Your task to perform on an android device: turn on javascript in the chrome app Image 0: 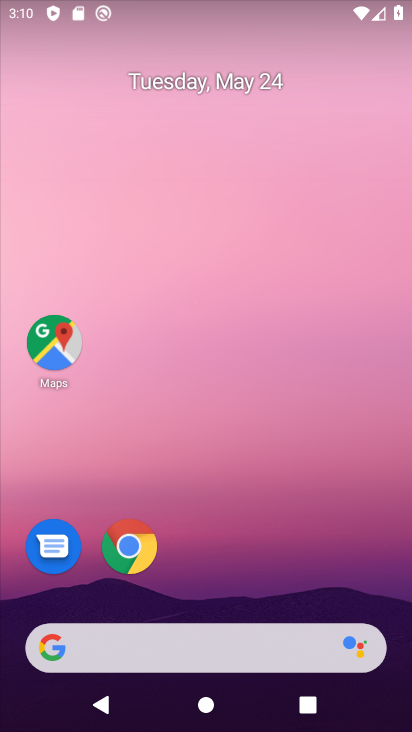
Step 0: drag from (249, 668) to (138, 232)
Your task to perform on an android device: turn on javascript in the chrome app Image 1: 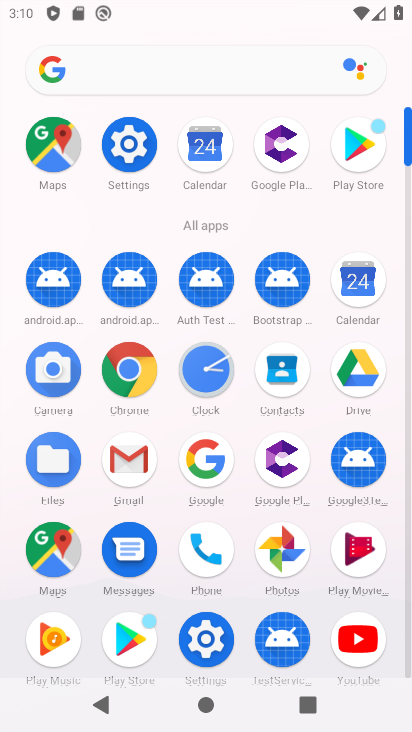
Step 1: click (133, 364)
Your task to perform on an android device: turn on javascript in the chrome app Image 2: 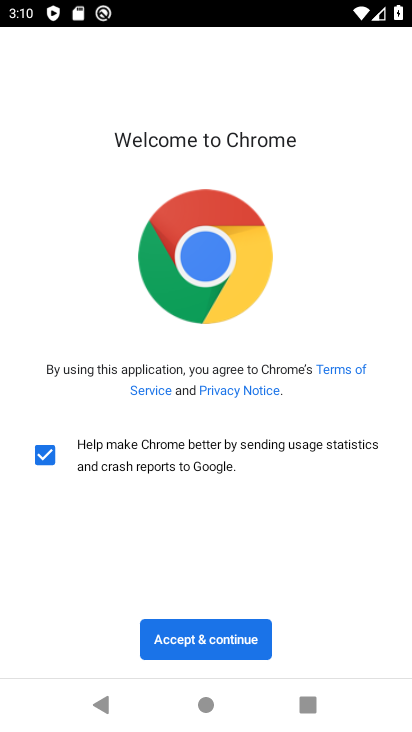
Step 2: click (198, 630)
Your task to perform on an android device: turn on javascript in the chrome app Image 3: 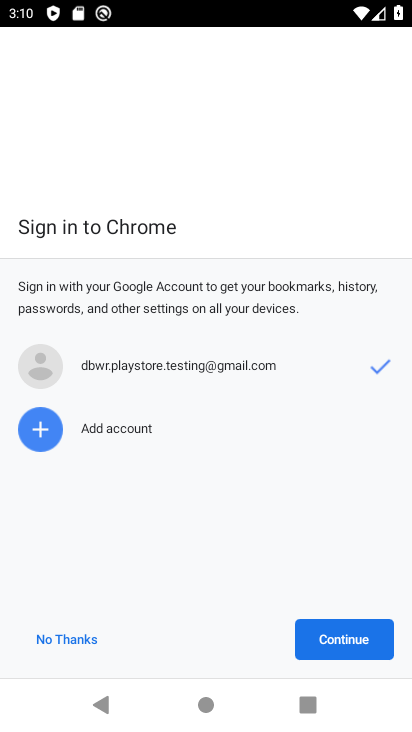
Step 3: click (380, 636)
Your task to perform on an android device: turn on javascript in the chrome app Image 4: 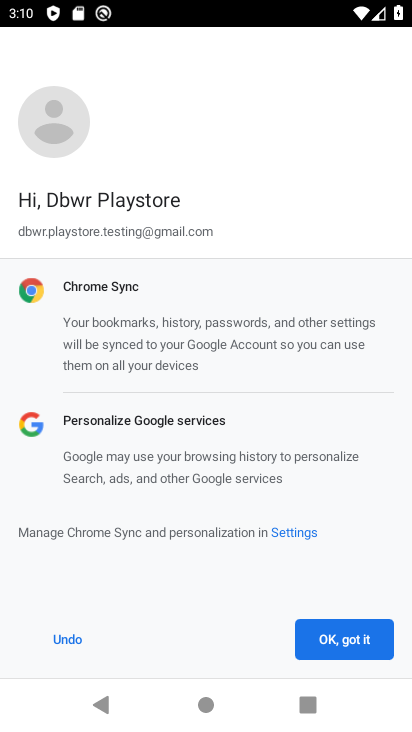
Step 4: click (358, 641)
Your task to perform on an android device: turn on javascript in the chrome app Image 5: 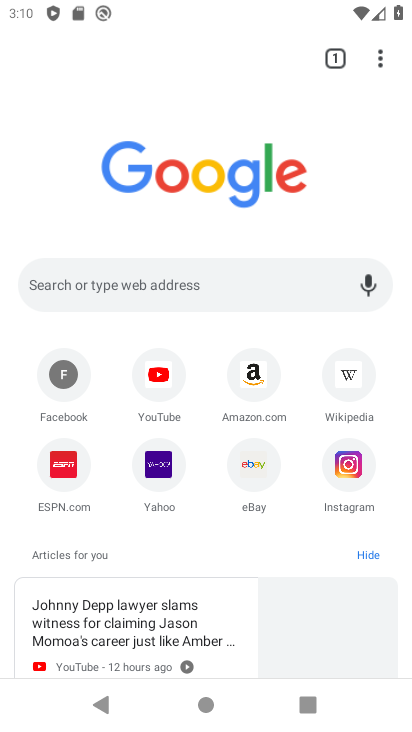
Step 5: drag from (387, 56) to (153, 494)
Your task to perform on an android device: turn on javascript in the chrome app Image 6: 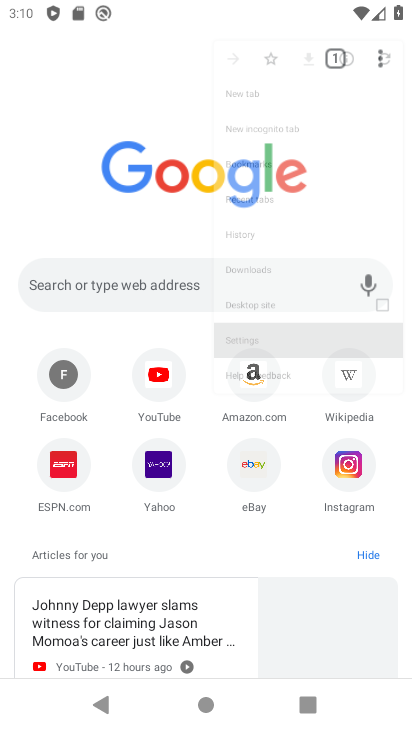
Step 6: click (153, 494)
Your task to perform on an android device: turn on javascript in the chrome app Image 7: 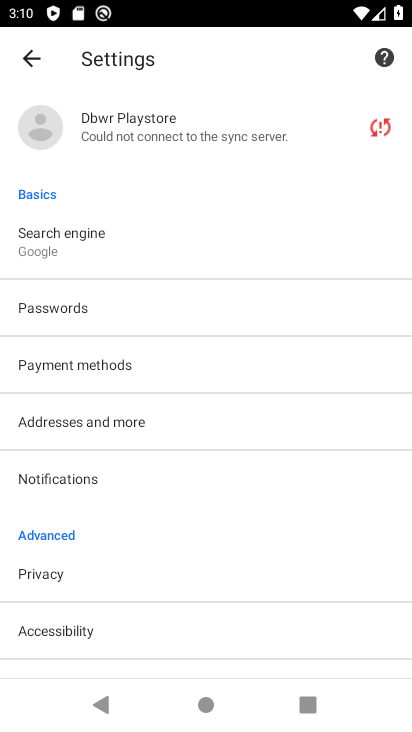
Step 7: drag from (109, 589) to (122, 316)
Your task to perform on an android device: turn on javascript in the chrome app Image 8: 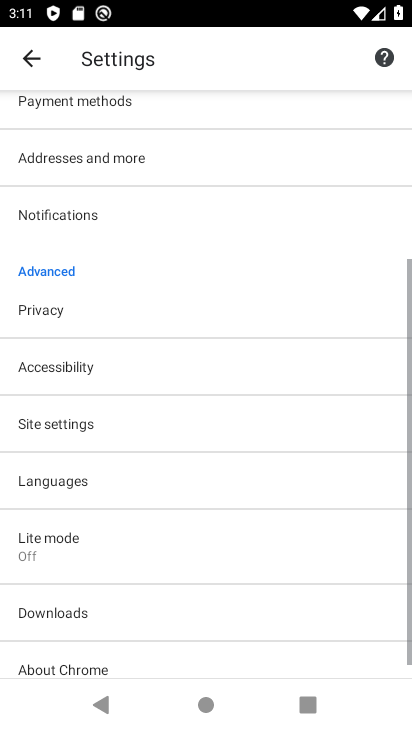
Step 8: click (33, 427)
Your task to perform on an android device: turn on javascript in the chrome app Image 9: 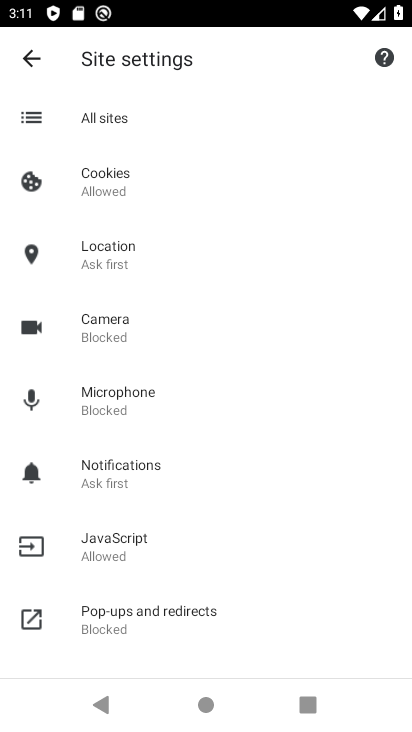
Step 9: click (100, 545)
Your task to perform on an android device: turn on javascript in the chrome app Image 10: 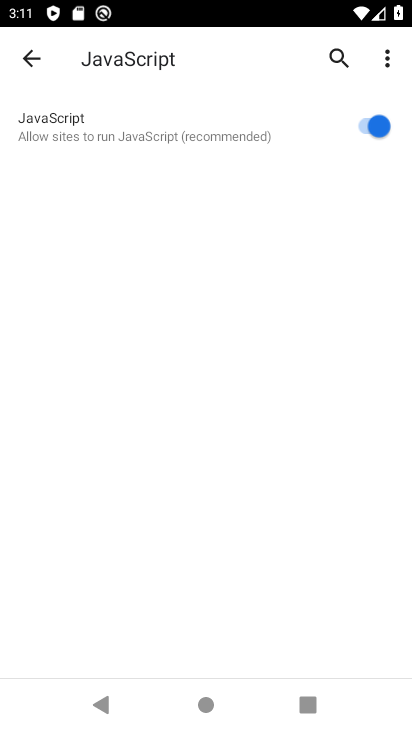
Step 10: click (108, 546)
Your task to perform on an android device: turn on javascript in the chrome app Image 11: 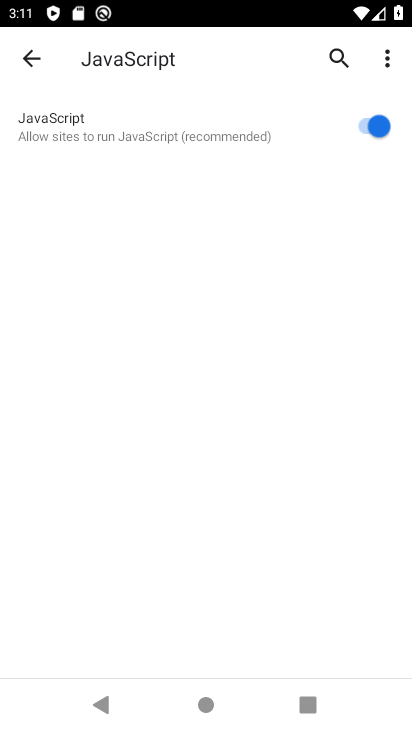
Step 11: task complete